Your task to perform on an android device: Show me recent news Image 0: 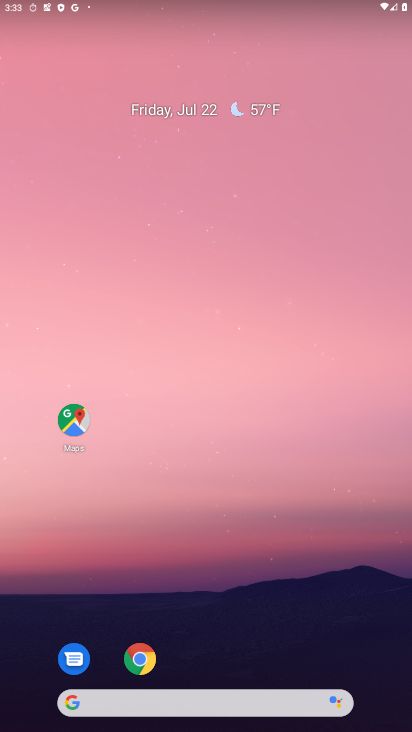
Step 0: click (235, 706)
Your task to perform on an android device: Show me recent news Image 1: 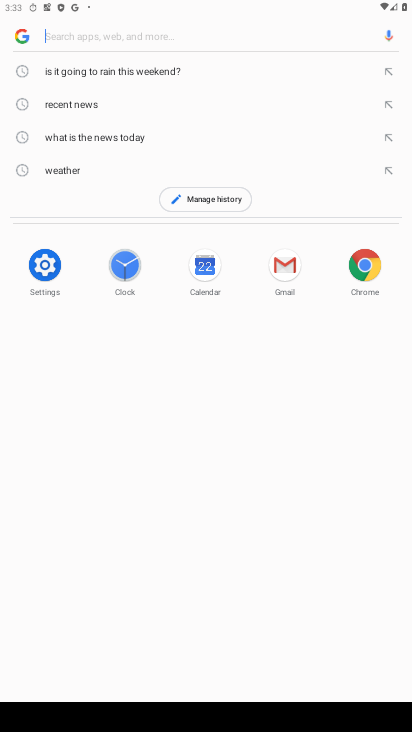
Step 1: type "recent news"
Your task to perform on an android device: Show me recent news Image 2: 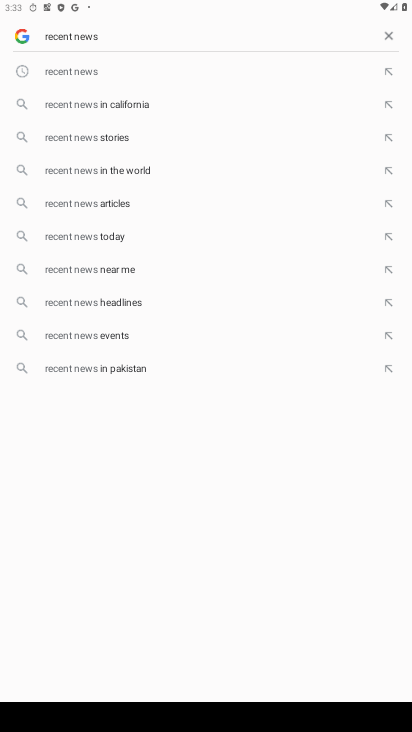
Step 2: click (109, 81)
Your task to perform on an android device: Show me recent news Image 3: 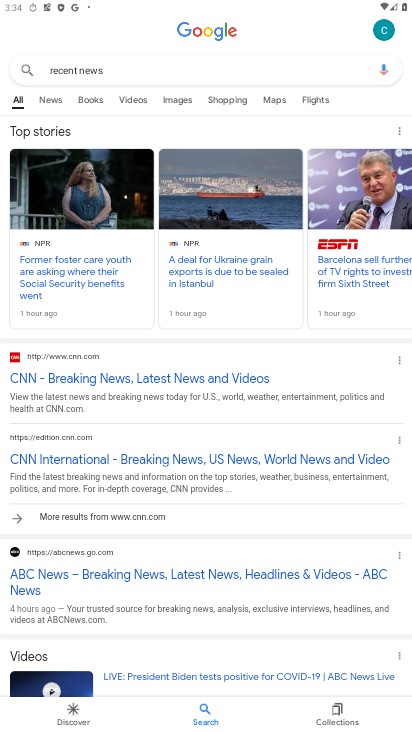
Step 3: click (38, 98)
Your task to perform on an android device: Show me recent news Image 4: 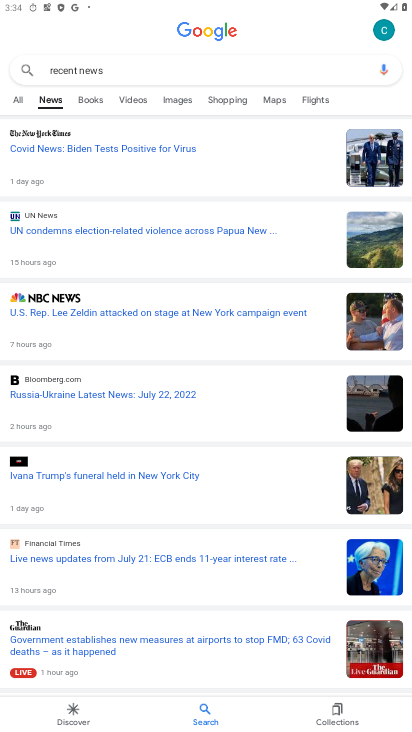
Step 4: task complete